Your task to perform on an android device: toggle airplane mode Image 0: 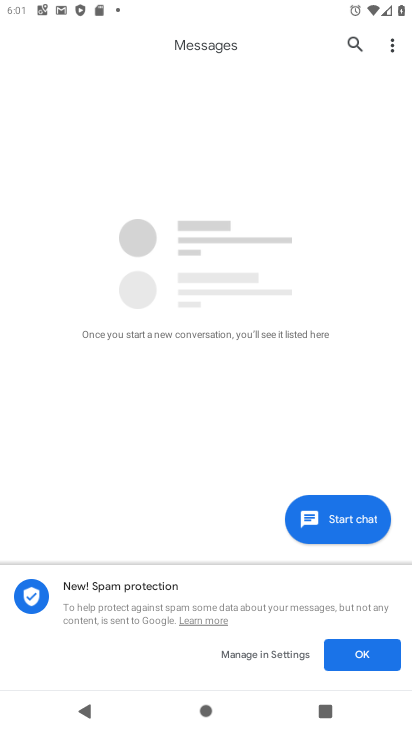
Step 0: press home button
Your task to perform on an android device: toggle airplane mode Image 1: 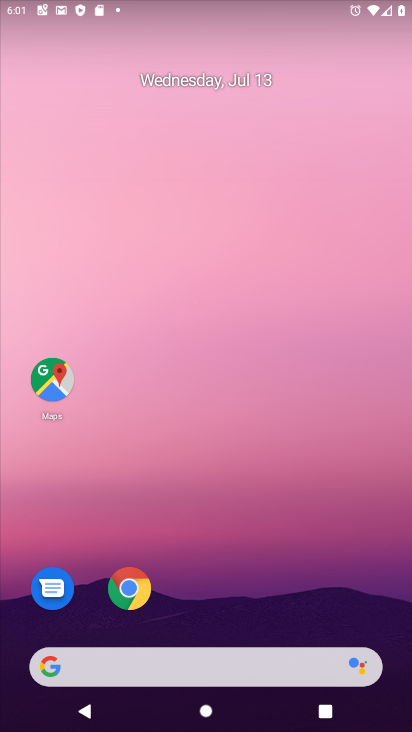
Step 1: drag from (205, 613) to (155, 51)
Your task to perform on an android device: toggle airplane mode Image 2: 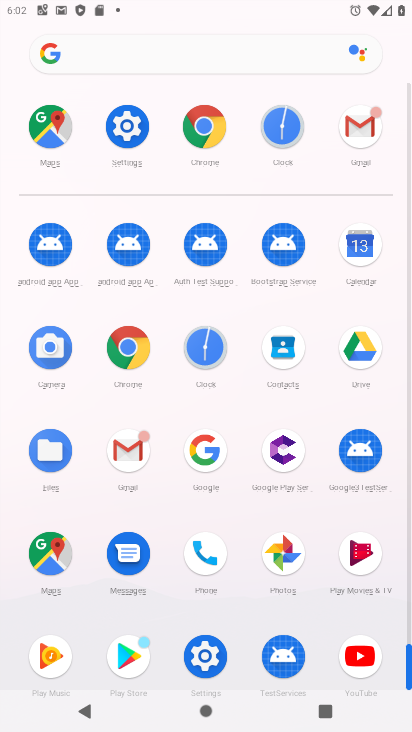
Step 2: click (133, 122)
Your task to perform on an android device: toggle airplane mode Image 3: 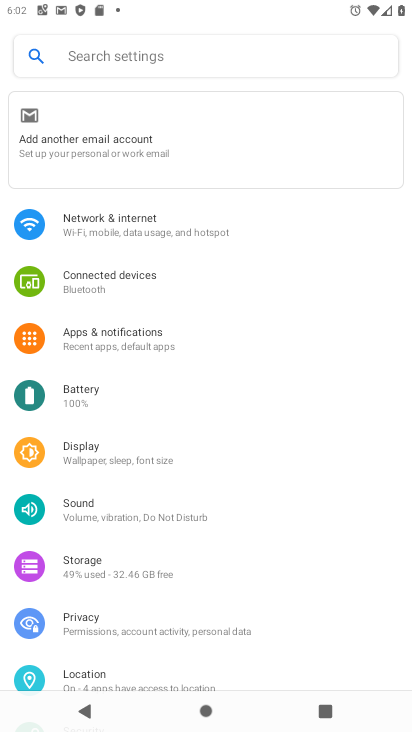
Step 3: click (102, 217)
Your task to perform on an android device: toggle airplane mode Image 4: 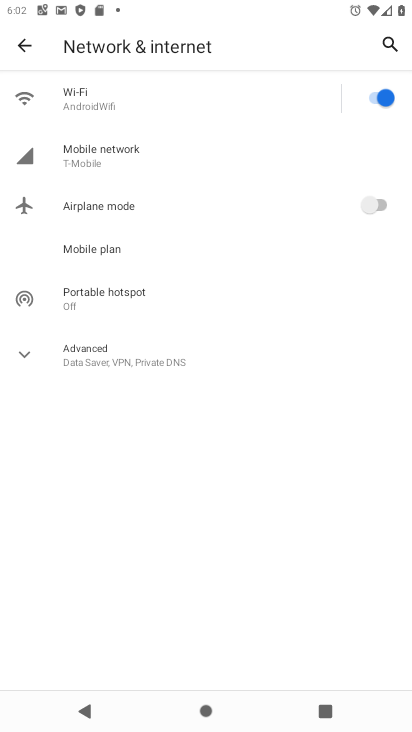
Step 4: click (388, 208)
Your task to perform on an android device: toggle airplane mode Image 5: 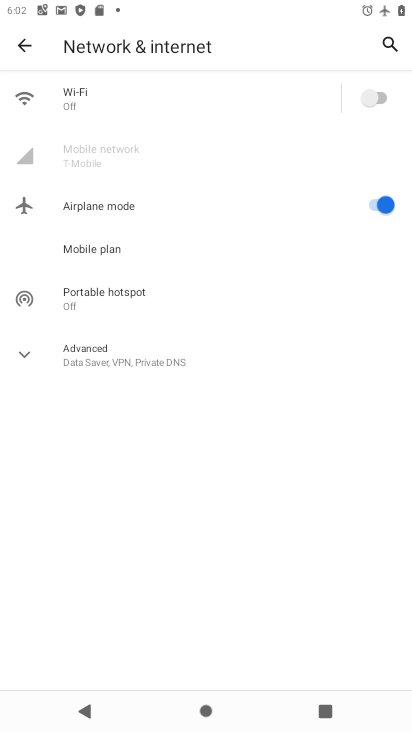
Step 5: task complete